Your task to perform on an android device: see sites visited before in the chrome app Image 0: 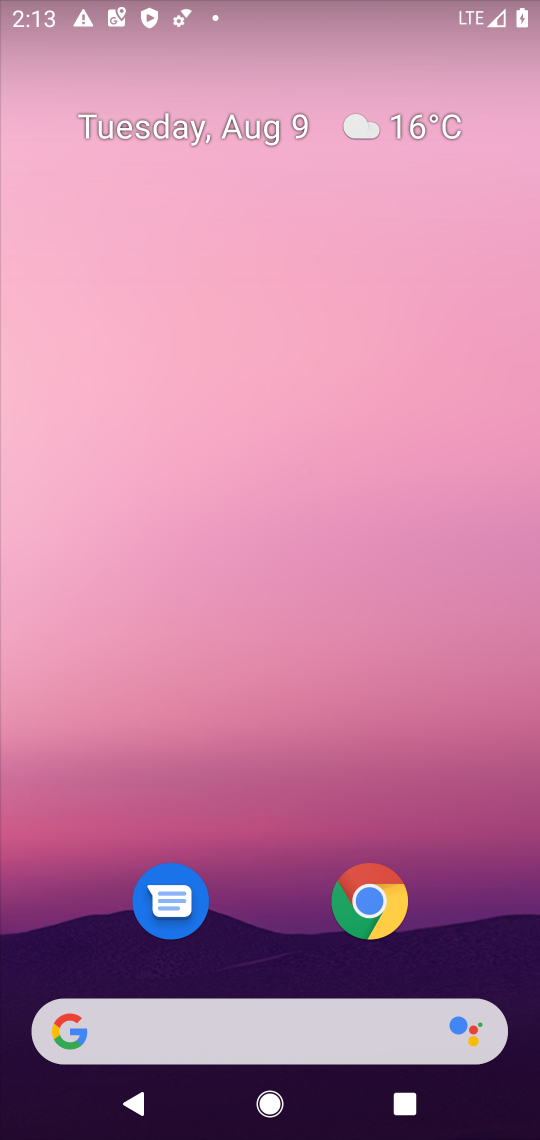
Step 0: click (371, 900)
Your task to perform on an android device: see sites visited before in the chrome app Image 1: 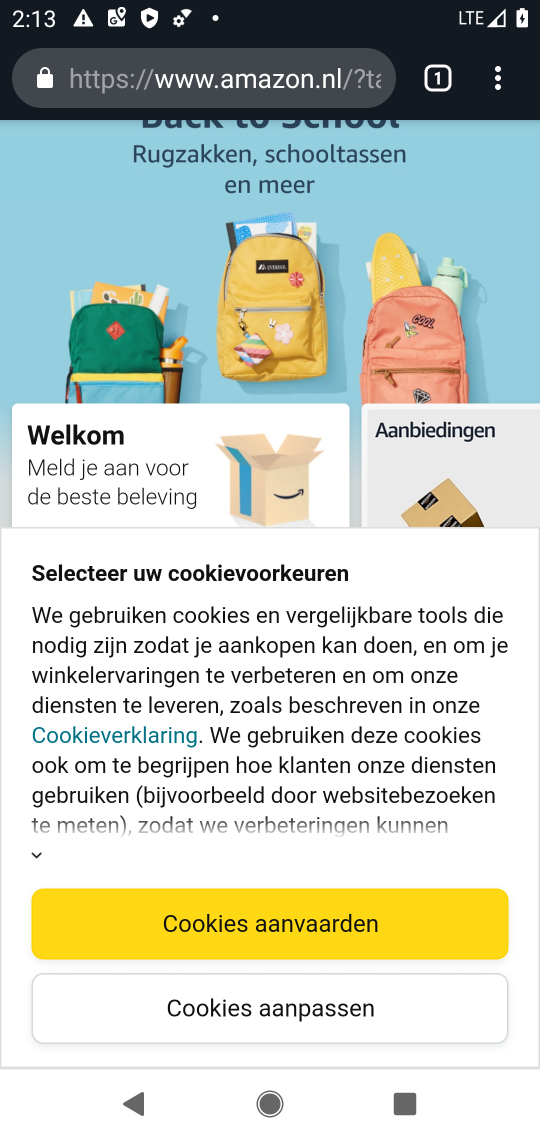
Step 1: click (492, 91)
Your task to perform on an android device: see sites visited before in the chrome app Image 2: 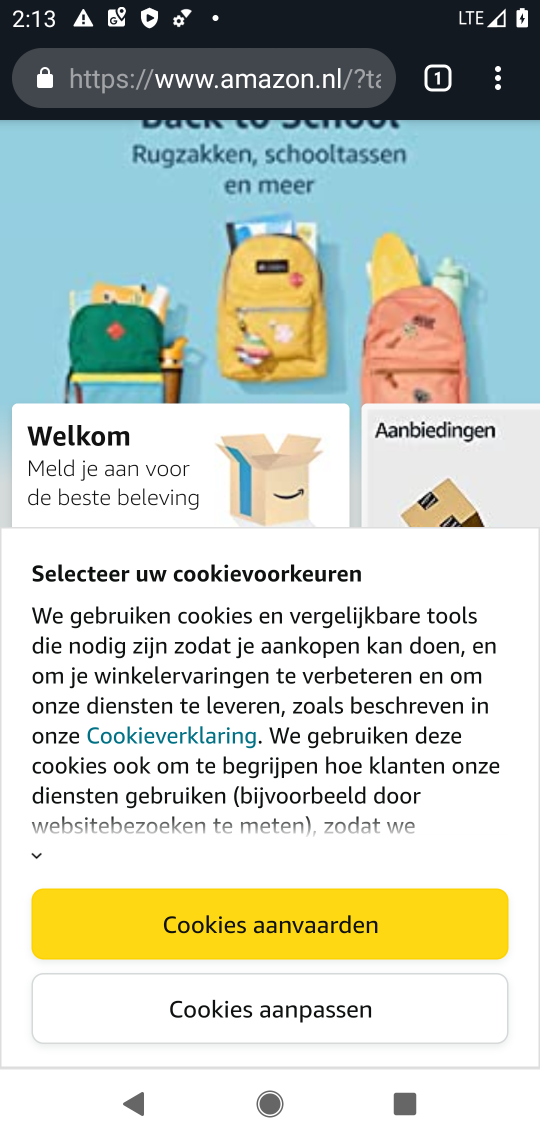
Step 2: click (496, 91)
Your task to perform on an android device: see sites visited before in the chrome app Image 3: 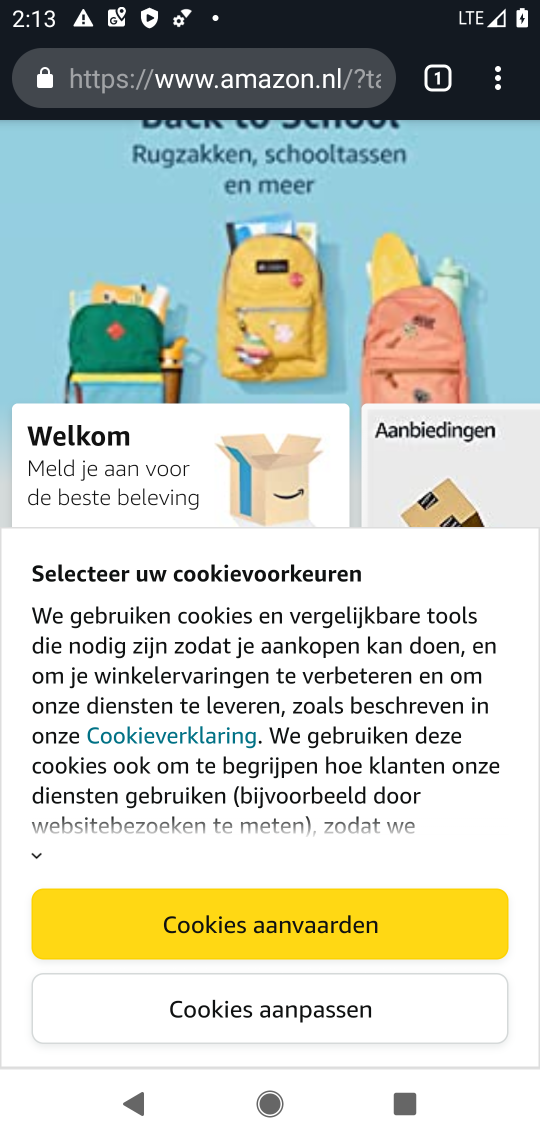
Step 3: click (496, 91)
Your task to perform on an android device: see sites visited before in the chrome app Image 4: 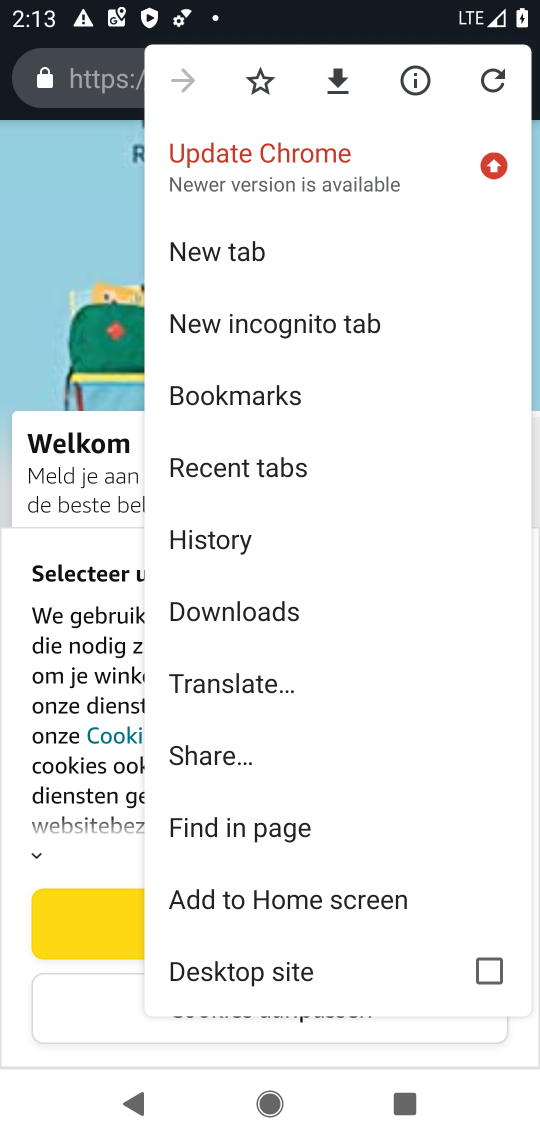
Step 4: click (231, 544)
Your task to perform on an android device: see sites visited before in the chrome app Image 5: 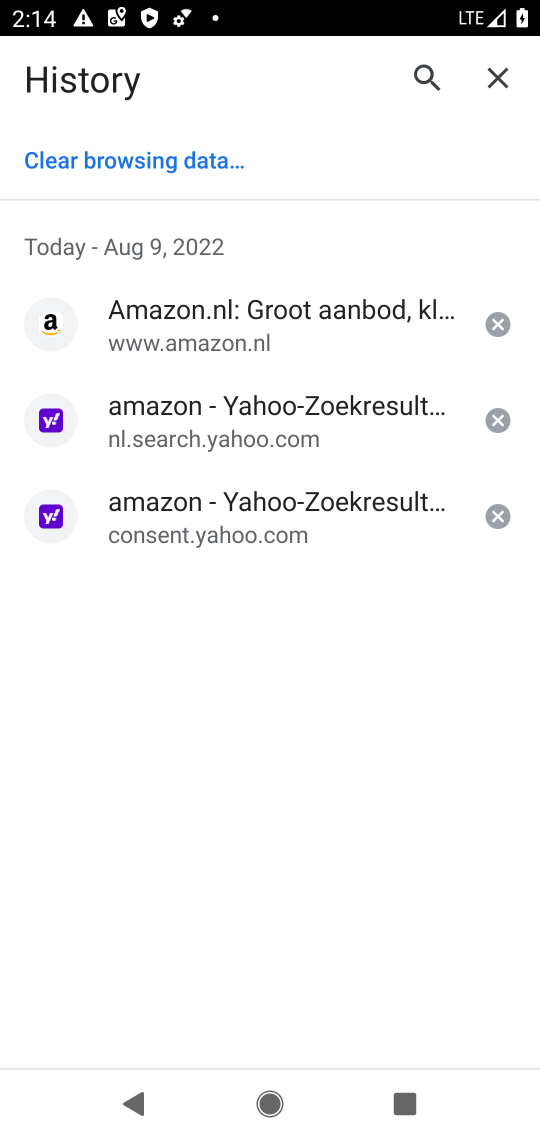
Step 5: task complete